Your task to perform on an android device: Search for "amazon basics triple a" on target, select the first entry, and add it to the cart. Image 0: 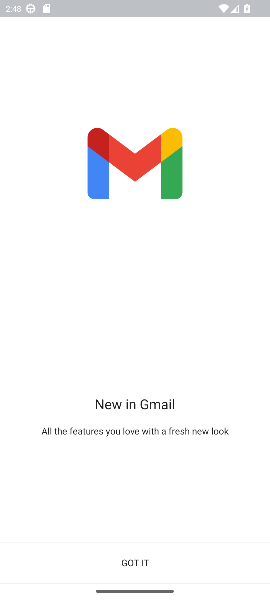
Step 0: press home button
Your task to perform on an android device: Search for "amazon basics triple a" on target, select the first entry, and add it to the cart. Image 1: 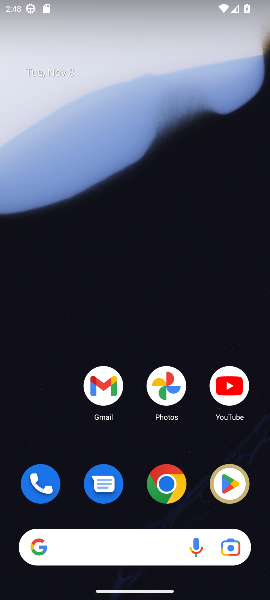
Step 1: click (176, 484)
Your task to perform on an android device: Search for "amazon basics triple a" on target, select the first entry, and add it to the cart. Image 2: 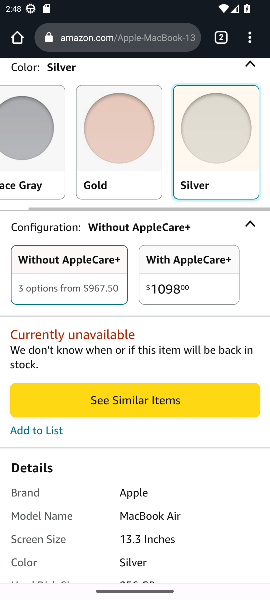
Step 2: click (104, 33)
Your task to perform on an android device: Search for "amazon basics triple a" on target, select the first entry, and add it to the cart. Image 3: 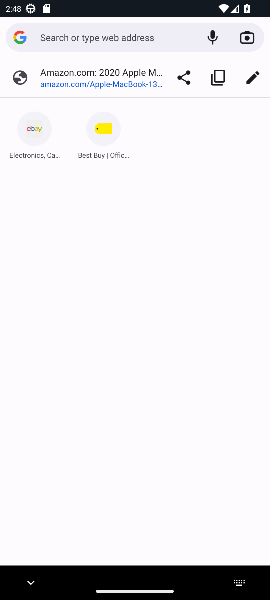
Step 3: type "target"
Your task to perform on an android device: Search for "amazon basics triple a" on target, select the first entry, and add it to the cart. Image 4: 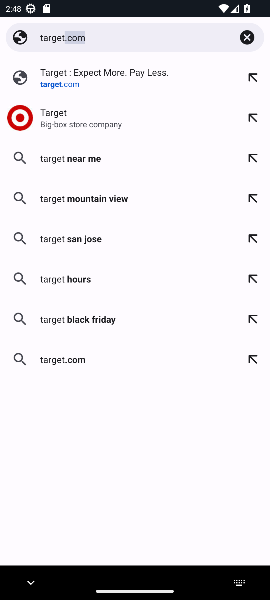
Step 4: click (61, 118)
Your task to perform on an android device: Search for "amazon basics triple a" on target, select the first entry, and add it to the cart. Image 5: 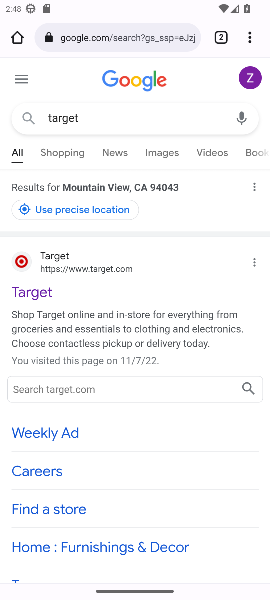
Step 5: click (23, 303)
Your task to perform on an android device: Search for "amazon basics triple a" on target, select the first entry, and add it to the cart. Image 6: 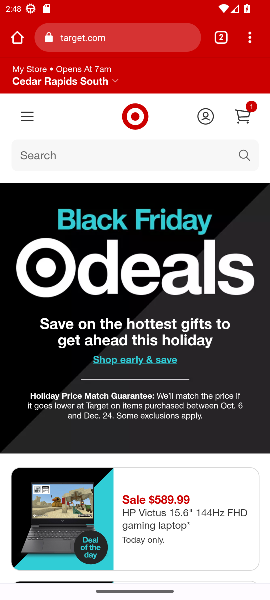
Step 6: click (53, 145)
Your task to perform on an android device: Search for "amazon basics triple a" on target, select the first entry, and add it to the cart. Image 7: 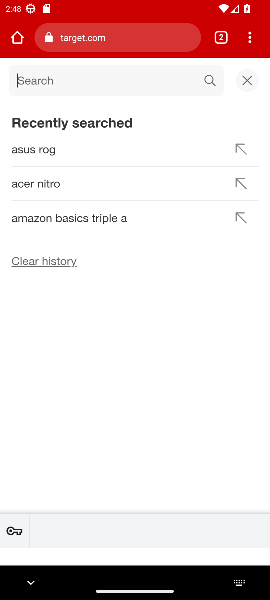
Step 7: type "amazon basics triple a"
Your task to perform on an android device: Search for "amazon basics triple a" on target, select the first entry, and add it to the cart. Image 8: 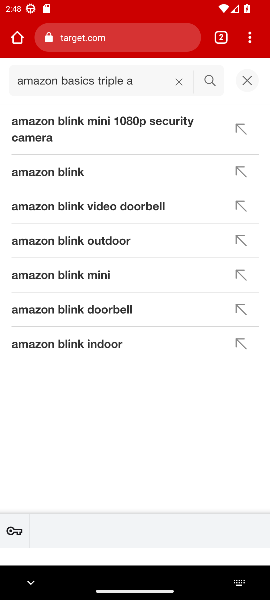
Step 8: click (213, 82)
Your task to perform on an android device: Search for "amazon basics triple a" on target, select the first entry, and add it to the cart. Image 9: 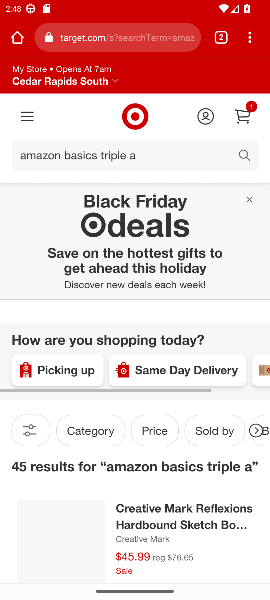
Step 9: task complete